Your task to perform on an android device: open app "The Home Depot" (install if not already installed), go to login, and select forgot password Image 0: 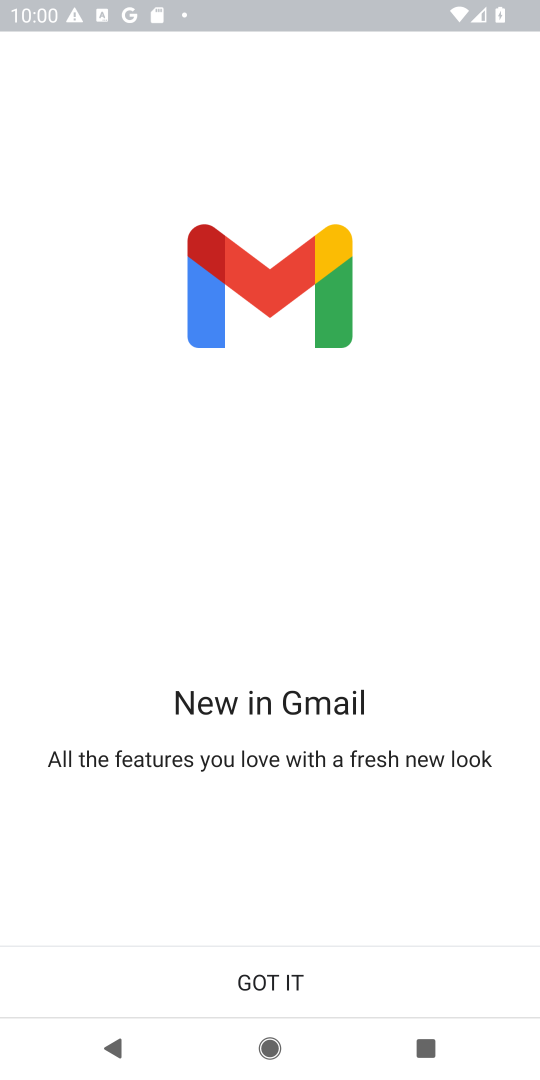
Step 0: press home button
Your task to perform on an android device: open app "The Home Depot" (install if not already installed), go to login, and select forgot password Image 1: 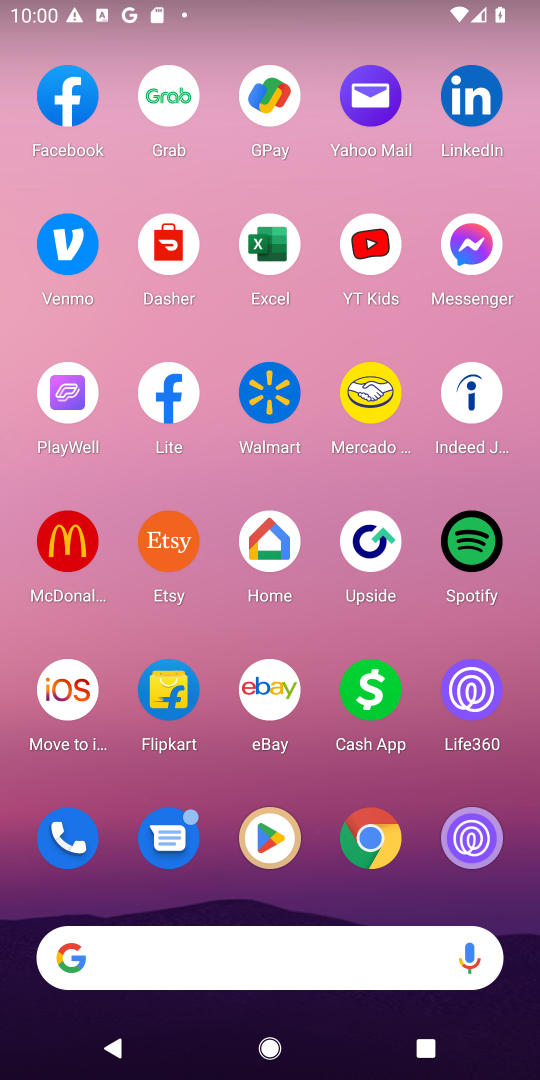
Step 1: click (269, 844)
Your task to perform on an android device: open app "The Home Depot" (install if not already installed), go to login, and select forgot password Image 2: 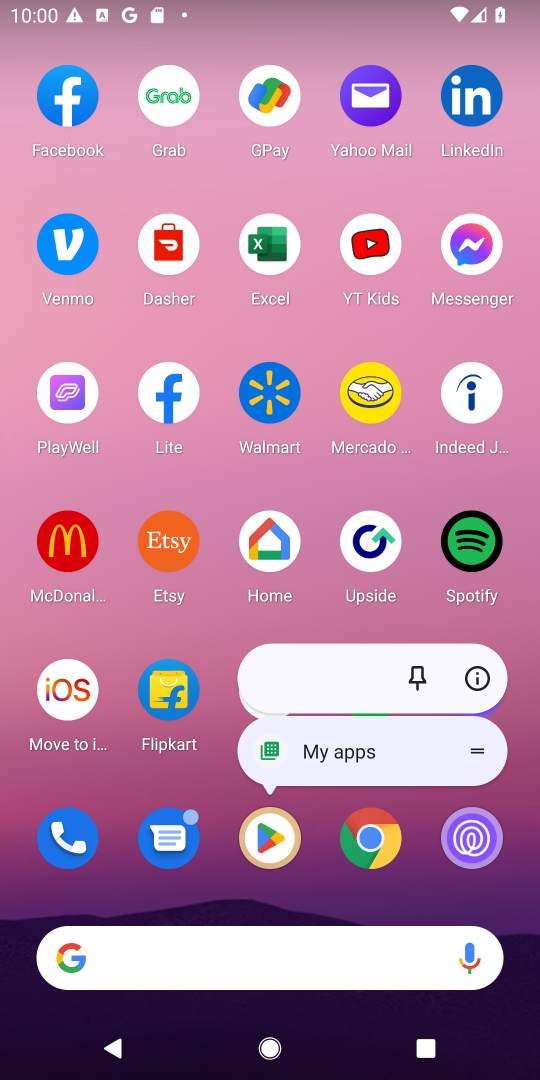
Step 2: click (271, 844)
Your task to perform on an android device: open app "The Home Depot" (install if not already installed), go to login, and select forgot password Image 3: 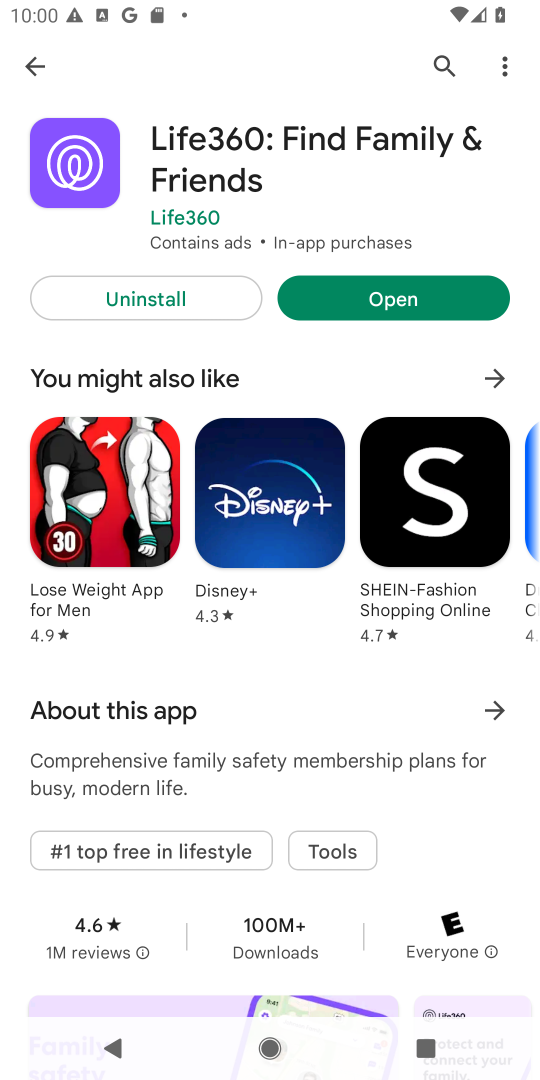
Step 3: click (435, 55)
Your task to perform on an android device: open app "The Home Depot" (install if not already installed), go to login, and select forgot password Image 4: 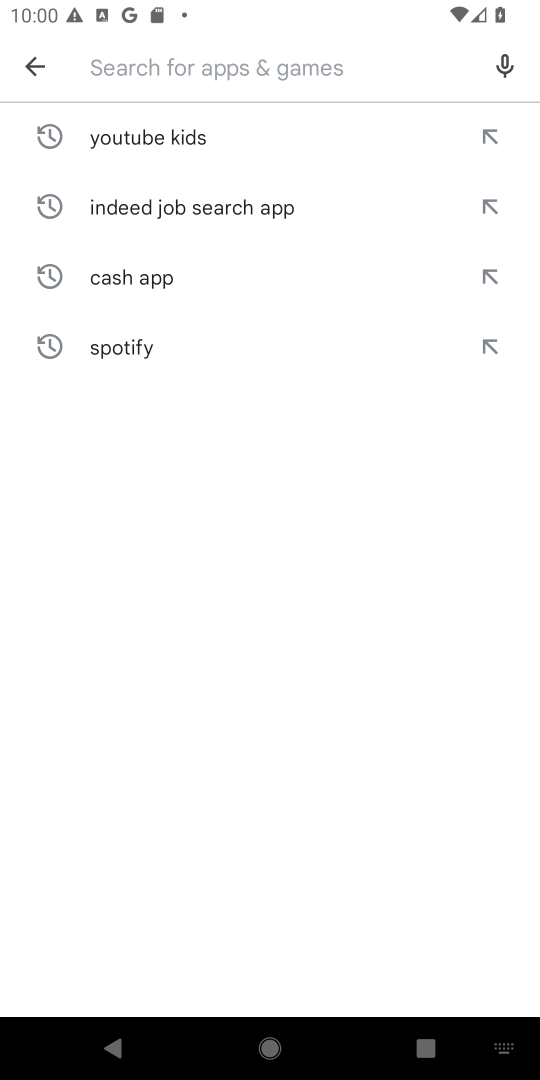
Step 4: type "The Home Depot"
Your task to perform on an android device: open app "The Home Depot" (install if not already installed), go to login, and select forgot password Image 5: 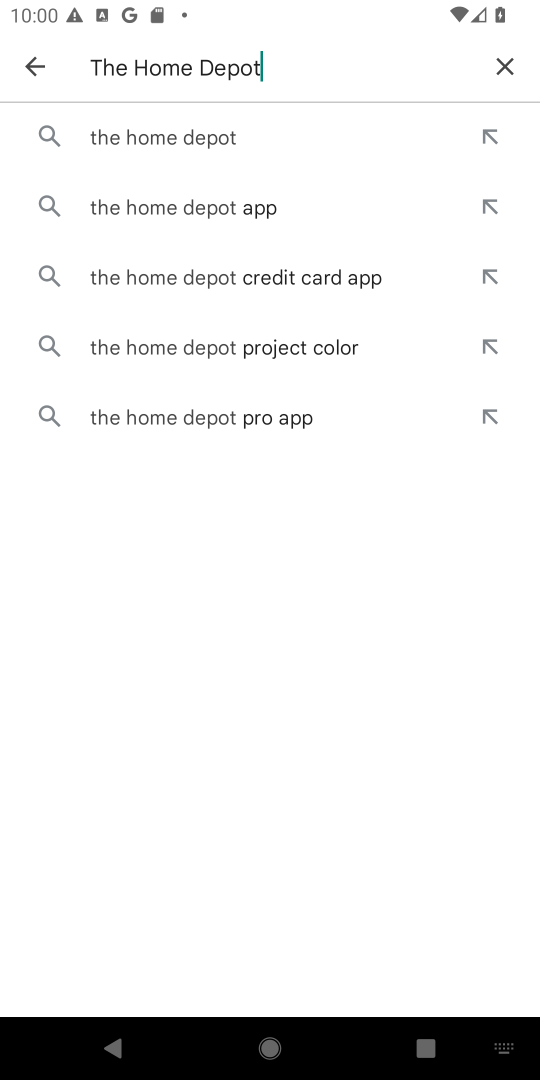
Step 5: click (154, 131)
Your task to perform on an android device: open app "The Home Depot" (install if not already installed), go to login, and select forgot password Image 6: 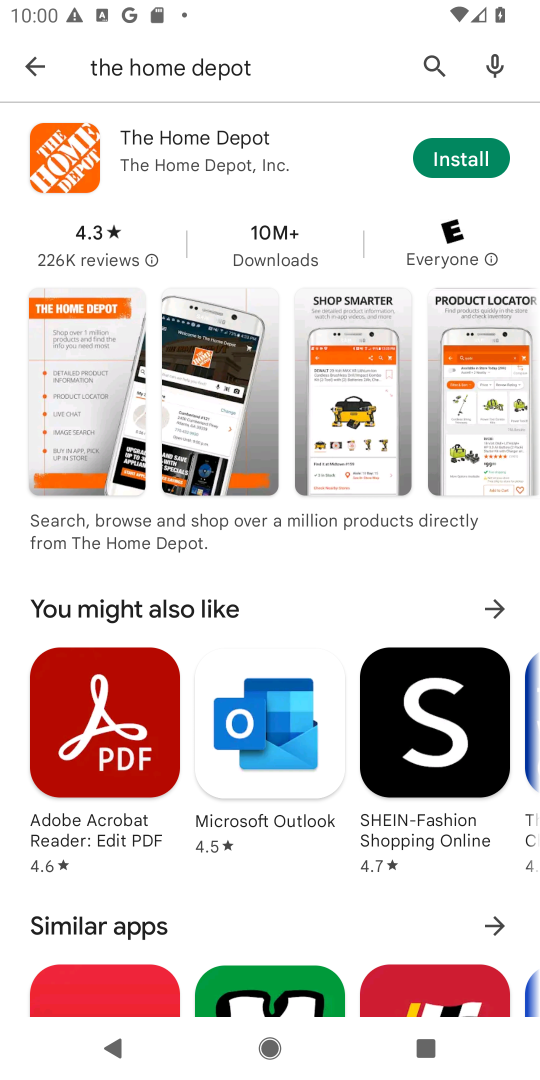
Step 6: click (467, 158)
Your task to perform on an android device: open app "The Home Depot" (install if not already installed), go to login, and select forgot password Image 7: 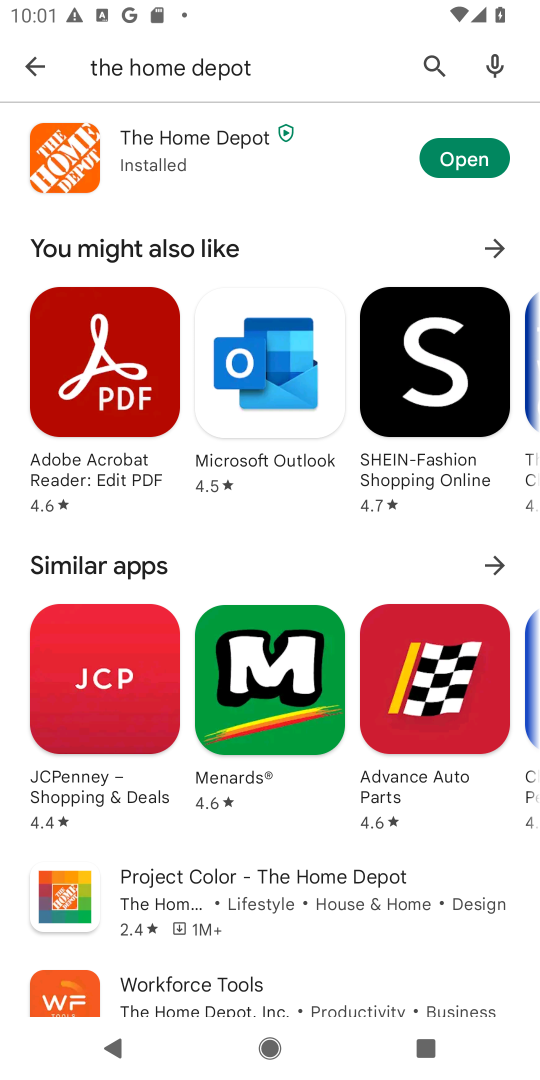
Step 7: click (462, 159)
Your task to perform on an android device: open app "The Home Depot" (install if not already installed), go to login, and select forgot password Image 8: 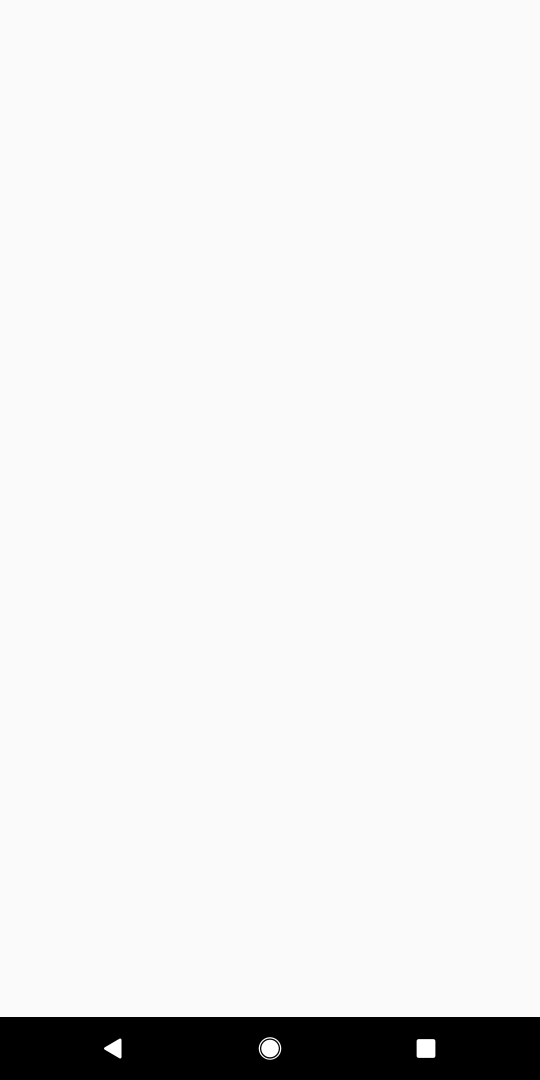
Step 8: task complete